Your task to perform on an android device: Turn on the flashlight Image 0: 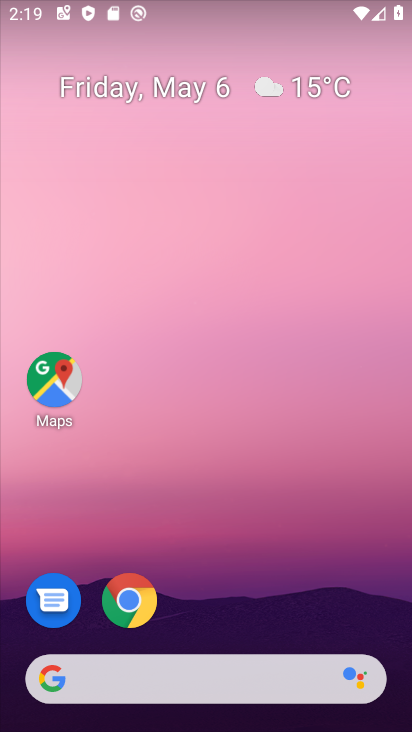
Step 0: drag from (317, 569) to (305, 64)
Your task to perform on an android device: Turn on the flashlight Image 1: 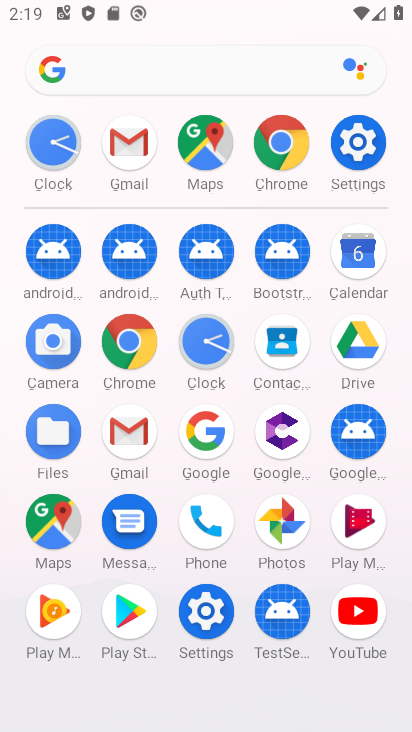
Step 1: click (197, 608)
Your task to perform on an android device: Turn on the flashlight Image 2: 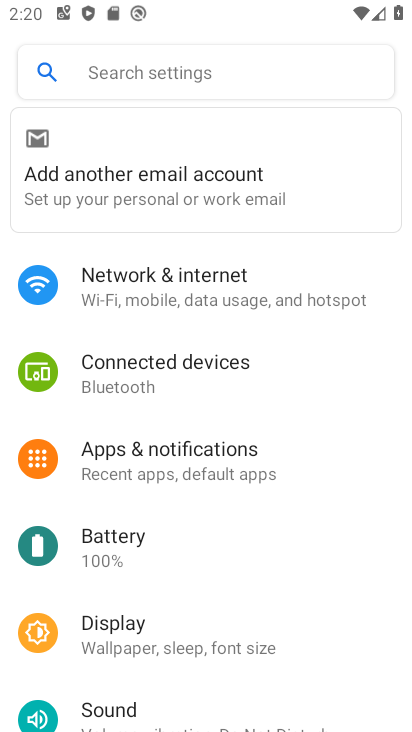
Step 2: click (203, 293)
Your task to perform on an android device: Turn on the flashlight Image 3: 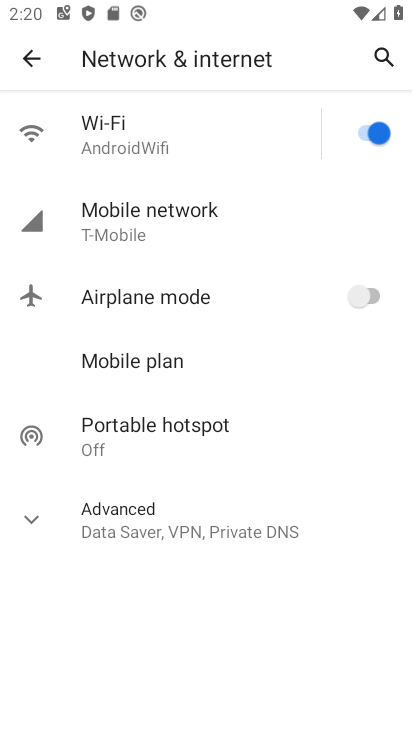
Step 3: click (95, 526)
Your task to perform on an android device: Turn on the flashlight Image 4: 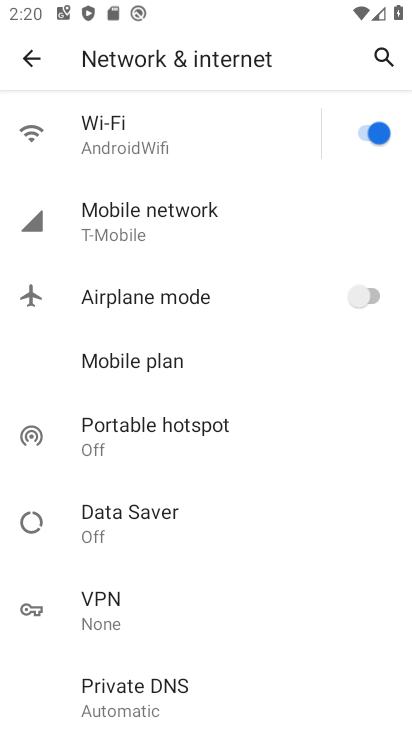
Step 4: task complete